Your task to perform on an android device: turn on improve location accuracy Image 0: 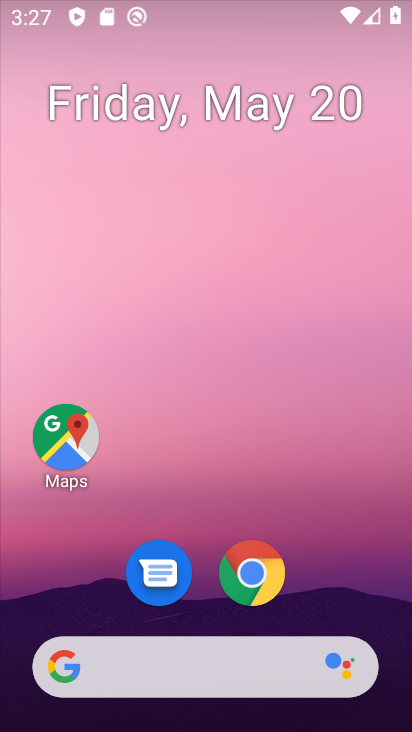
Step 0: click (329, 139)
Your task to perform on an android device: turn on improve location accuracy Image 1: 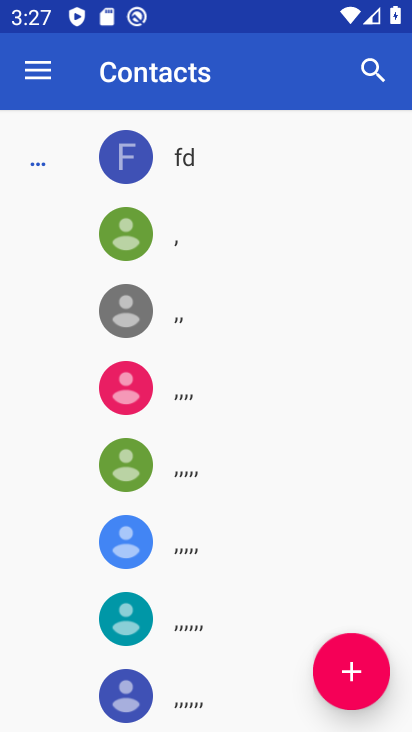
Step 1: press home button
Your task to perform on an android device: turn on improve location accuracy Image 2: 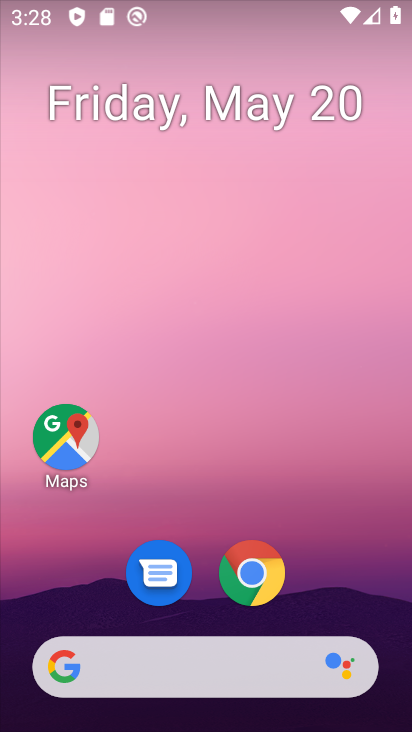
Step 2: drag from (323, 560) to (335, 180)
Your task to perform on an android device: turn on improve location accuracy Image 3: 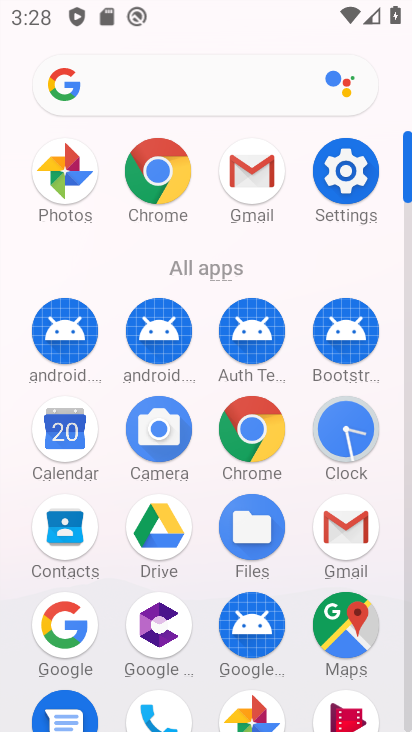
Step 3: click (359, 165)
Your task to perform on an android device: turn on improve location accuracy Image 4: 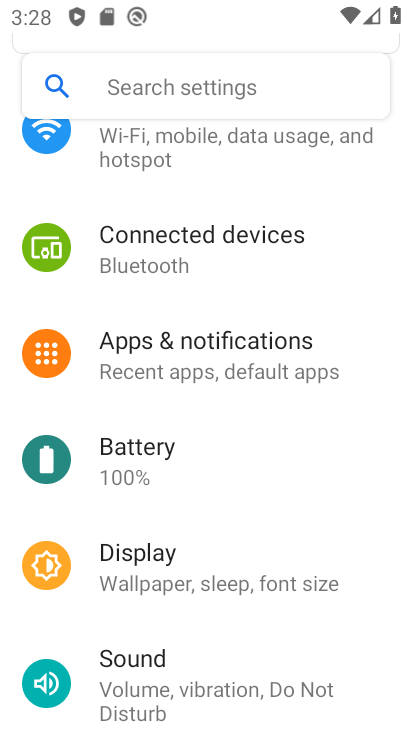
Step 4: drag from (296, 634) to (293, 345)
Your task to perform on an android device: turn on improve location accuracy Image 5: 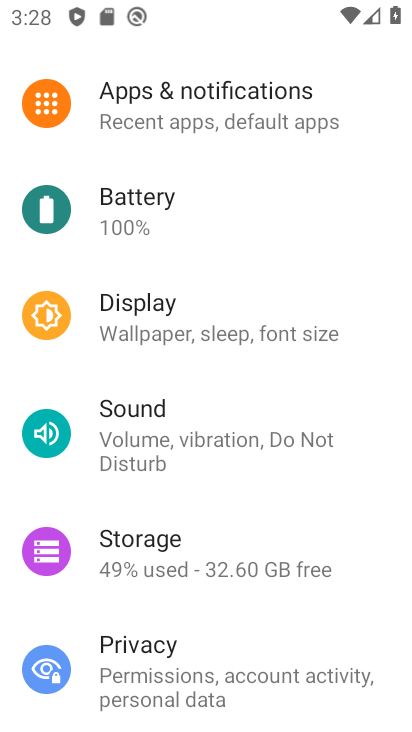
Step 5: drag from (308, 611) to (322, 326)
Your task to perform on an android device: turn on improve location accuracy Image 6: 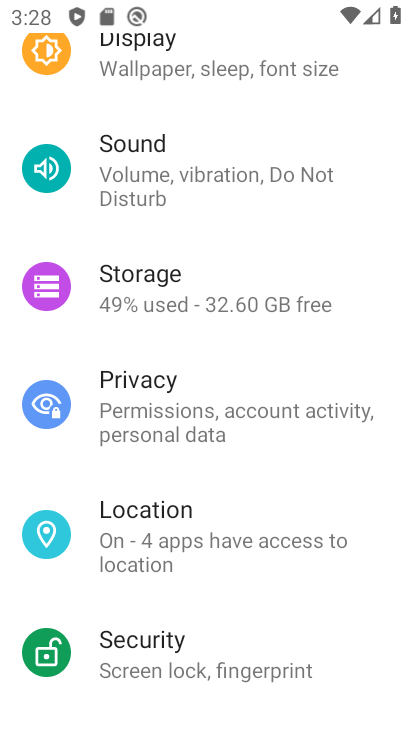
Step 6: click (243, 547)
Your task to perform on an android device: turn on improve location accuracy Image 7: 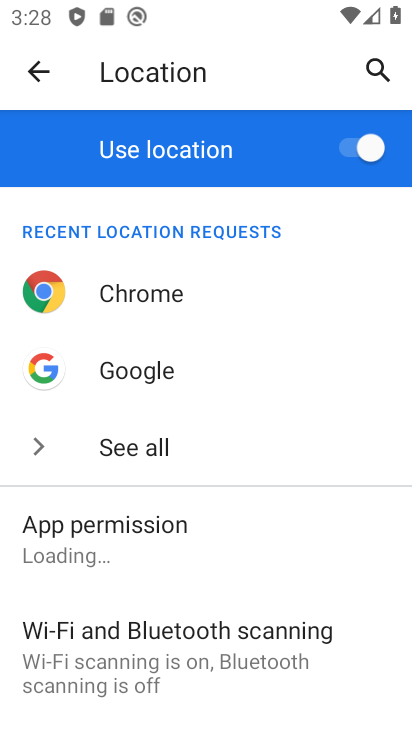
Step 7: drag from (243, 548) to (259, 347)
Your task to perform on an android device: turn on improve location accuracy Image 8: 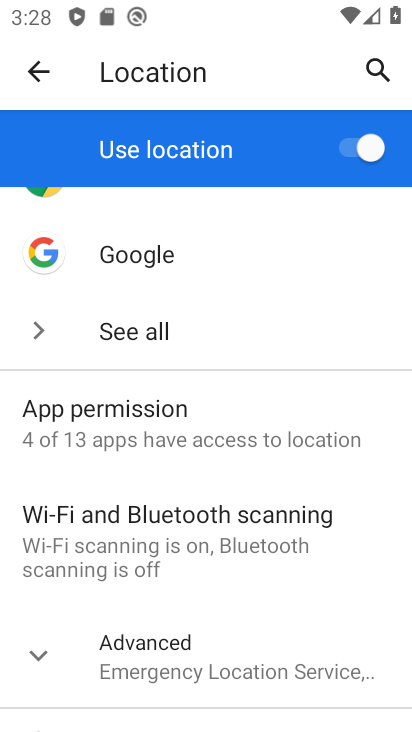
Step 8: click (304, 652)
Your task to perform on an android device: turn on improve location accuracy Image 9: 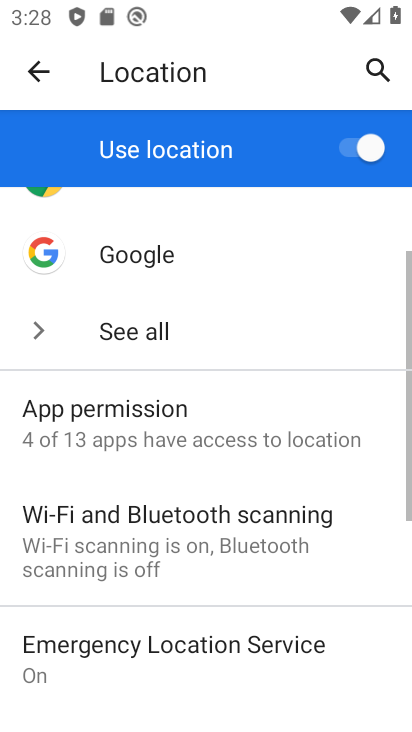
Step 9: drag from (236, 658) to (276, 436)
Your task to perform on an android device: turn on improve location accuracy Image 10: 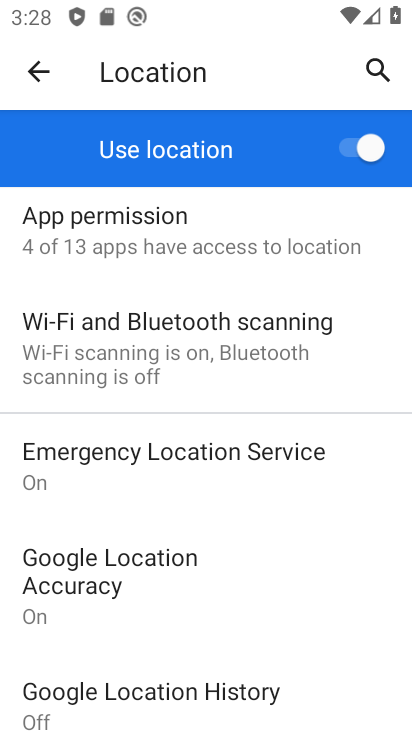
Step 10: drag from (245, 581) to (248, 352)
Your task to perform on an android device: turn on improve location accuracy Image 11: 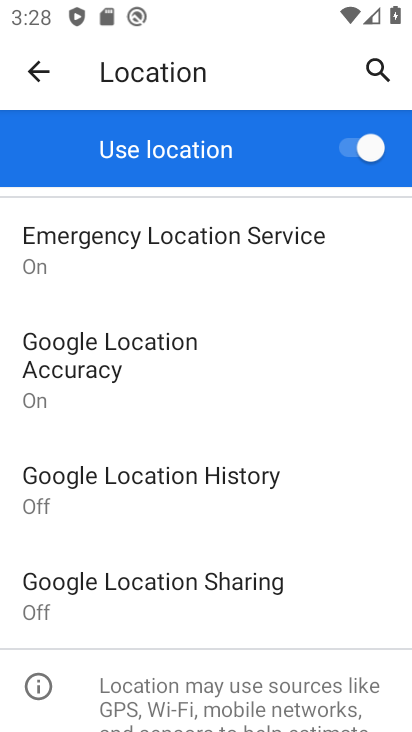
Step 11: click (124, 362)
Your task to perform on an android device: turn on improve location accuracy Image 12: 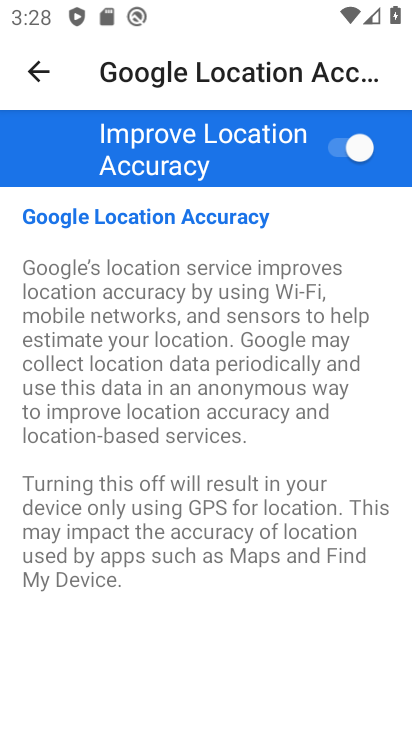
Step 12: task complete